Your task to perform on an android device: uninstall "LiveIn - Share Your Moment" Image 0: 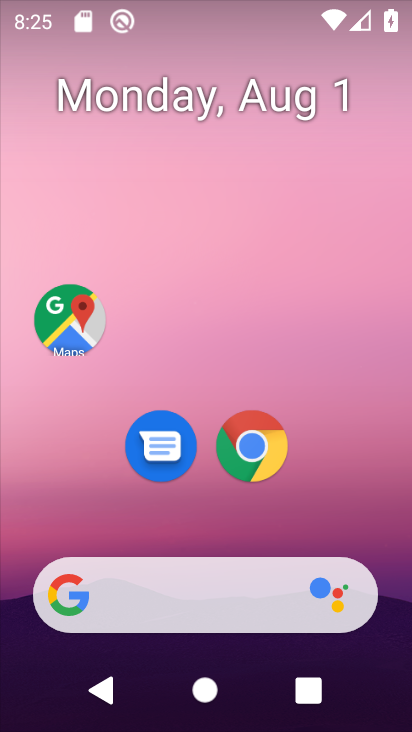
Step 0: drag from (206, 522) to (232, 47)
Your task to perform on an android device: uninstall "LiveIn - Share Your Moment" Image 1: 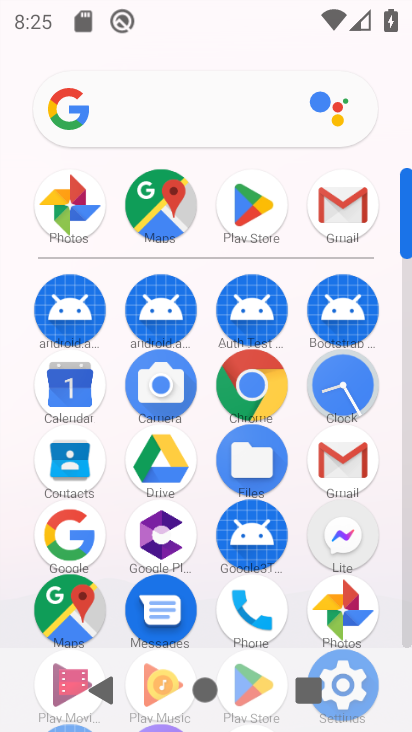
Step 1: click (263, 190)
Your task to perform on an android device: uninstall "LiveIn - Share Your Moment" Image 2: 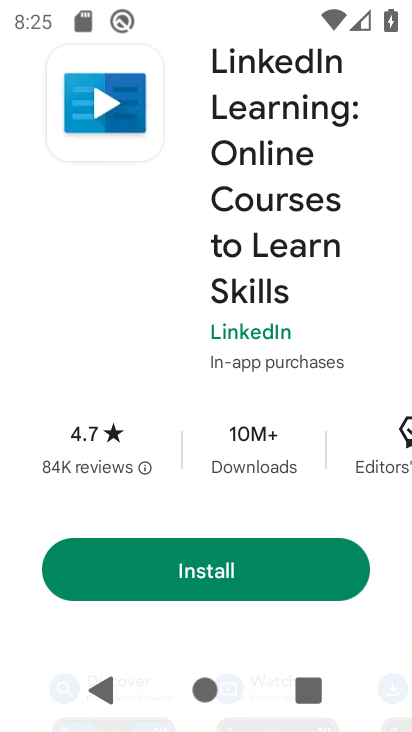
Step 2: press back button
Your task to perform on an android device: uninstall "LiveIn - Share Your Moment" Image 3: 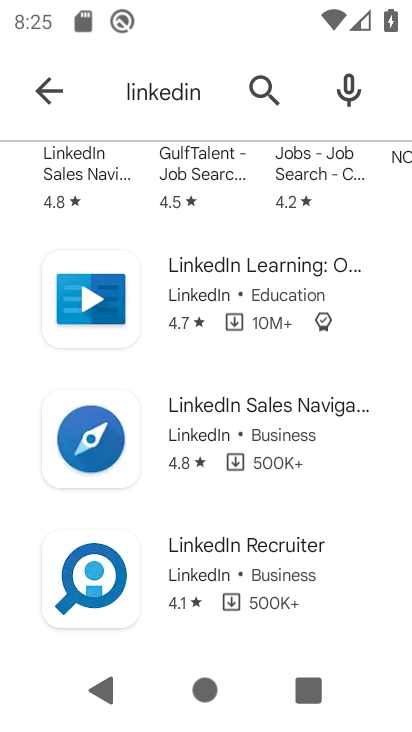
Step 3: click (262, 88)
Your task to perform on an android device: uninstall "LiveIn - Share Your Moment" Image 4: 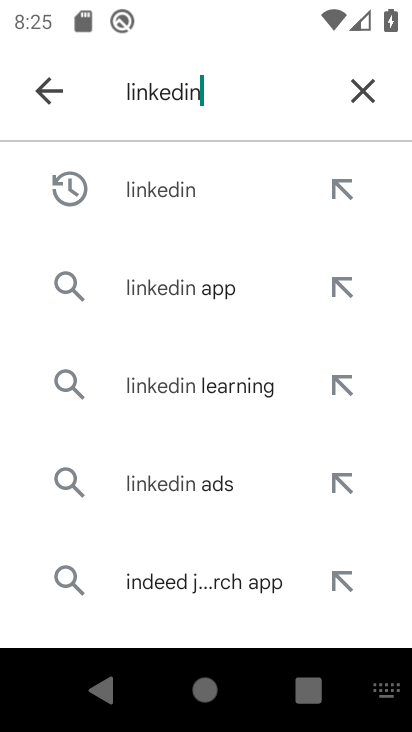
Step 4: click (355, 93)
Your task to perform on an android device: uninstall "LiveIn - Share Your Moment" Image 5: 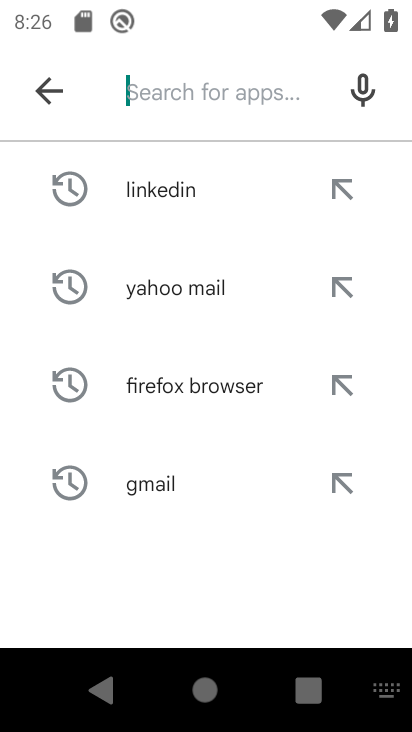
Step 5: type "LiveIn - Share Your Moment"
Your task to perform on an android device: uninstall "LiveIn - Share Your Moment" Image 6: 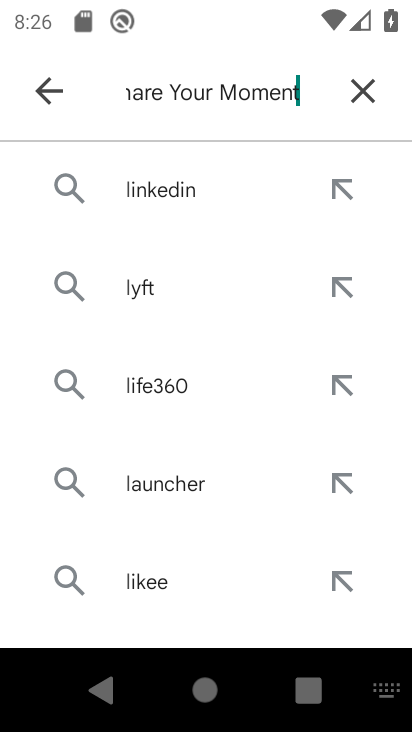
Step 6: type ""
Your task to perform on an android device: uninstall "LiveIn - Share Your Moment" Image 7: 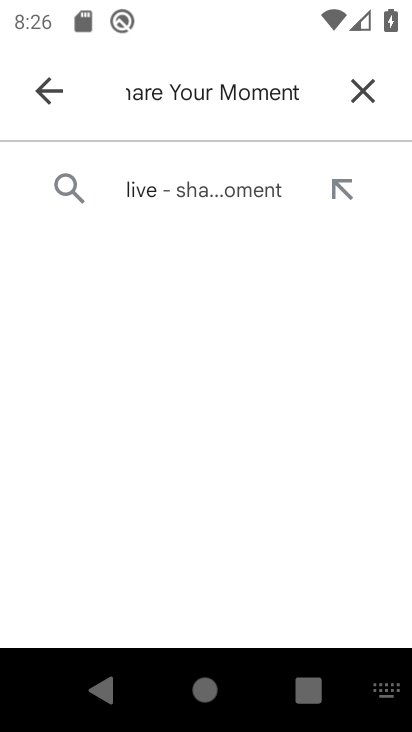
Step 7: click (149, 189)
Your task to perform on an android device: uninstall "LiveIn - Share Your Moment" Image 8: 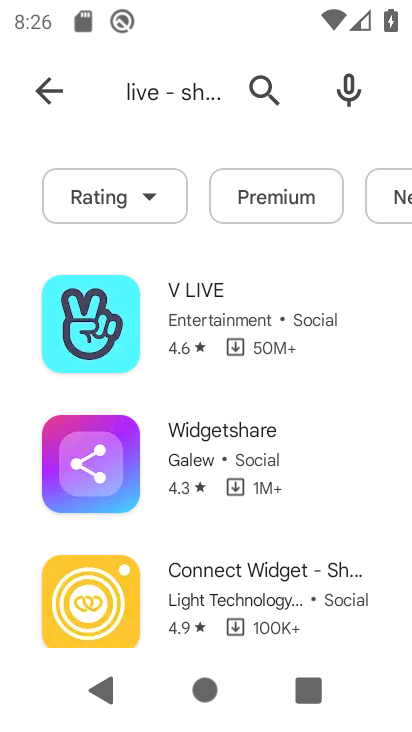
Step 8: drag from (275, 534) to (303, 571)
Your task to perform on an android device: uninstall "LiveIn - Share Your Moment" Image 9: 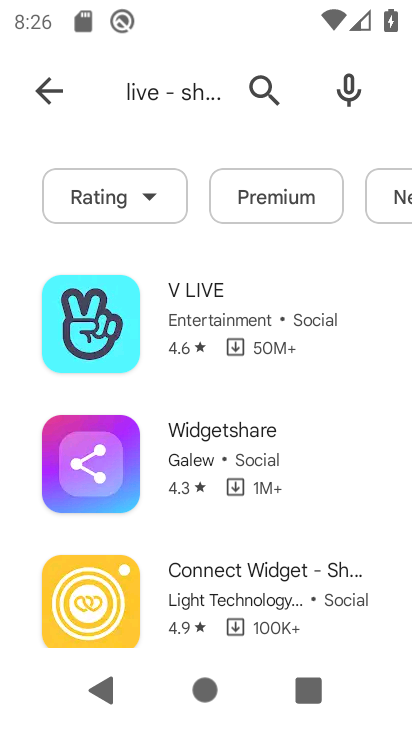
Step 9: click (307, 311)
Your task to perform on an android device: uninstall "LiveIn - Share Your Moment" Image 10: 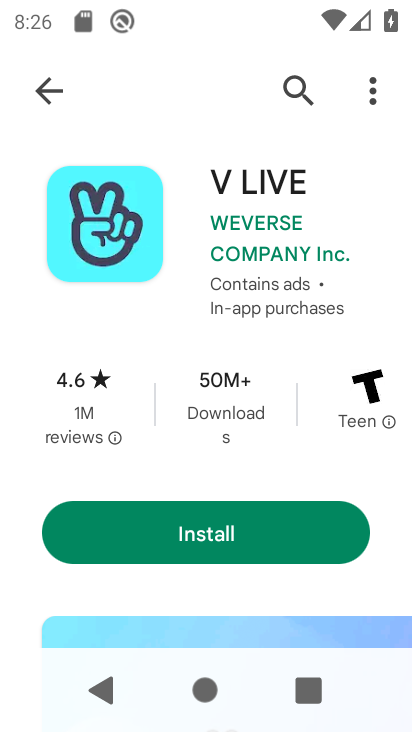
Step 10: task complete